Your task to perform on an android device: toggle notifications settings in the gmail app Image 0: 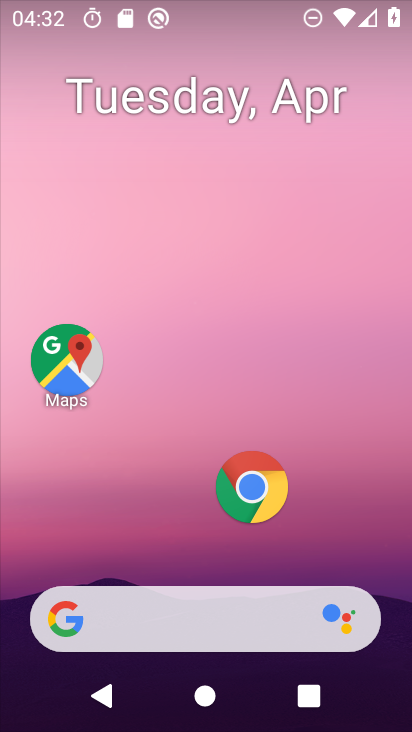
Step 0: drag from (177, 532) to (349, 32)
Your task to perform on an android device: toggle notifications settings in the gmail app Image 1: 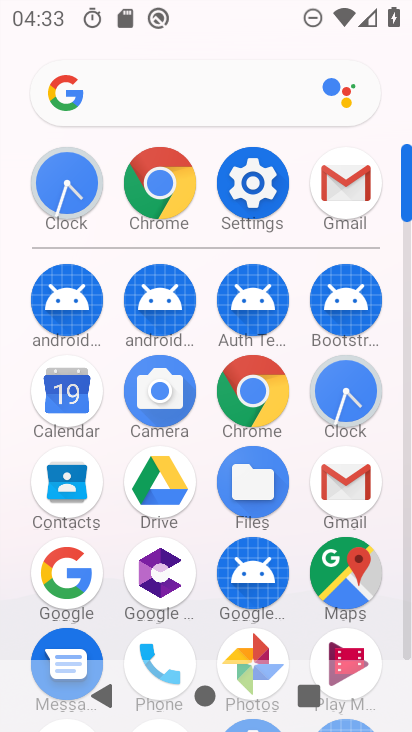
Step 1: click (331, 179)
Your task to perform on an android device: toggle notifications settings in the gmail app Image 2: 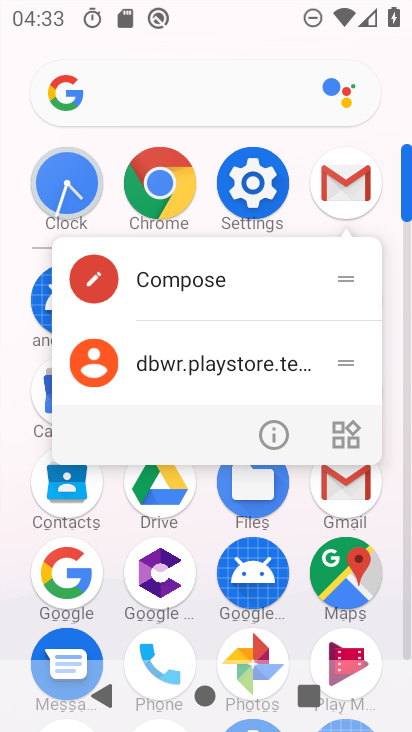
Step 2: click (275, 440)
Your task to perform on an android device: toggle notifications settings in the gmail app Image 3: 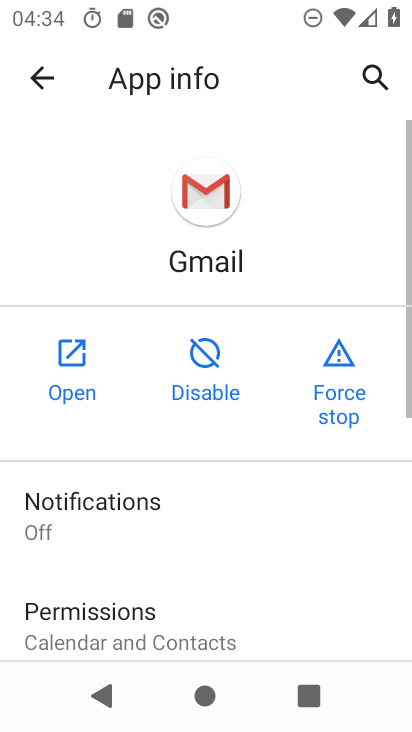
Step 3: click (140, 521)
Your task to perform on an android device: toggle notifications settings in the gmail app Image 4: 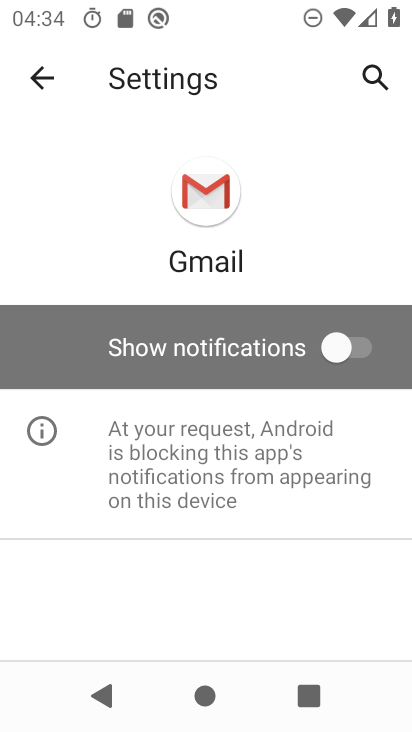
Step 4: click (333, 350)
Your task to perform on an android device: toggle notifications settings in the gmail app Image 5: 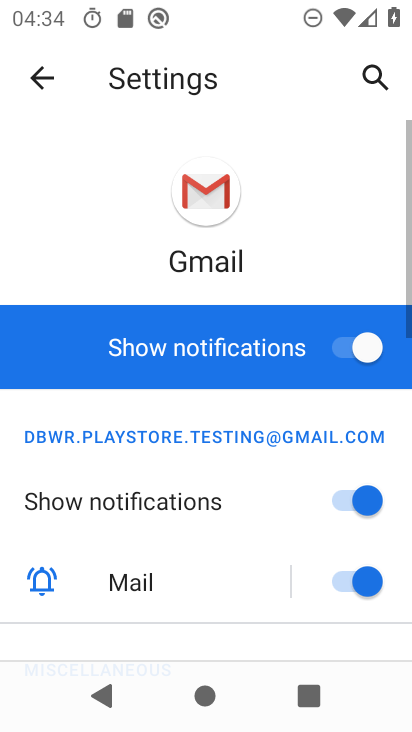
Step 5: task complete